Your task to perform on an android device: What's on my calendar today? Image 0: 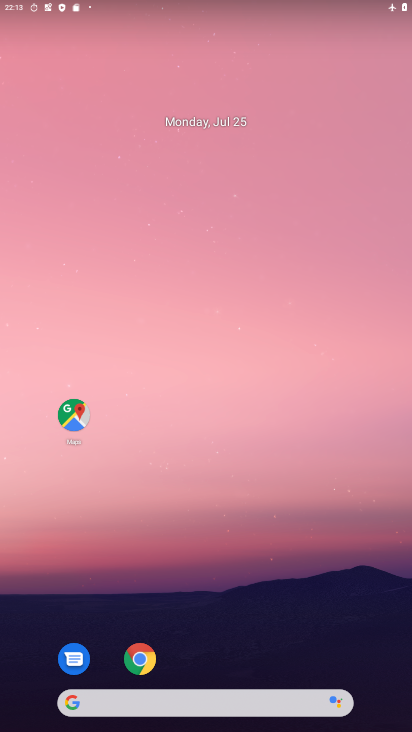
Step 0: drag from (196, 653) to (201, 232)
Your task to perform on an android device: What's on my calendar today? Image 1: 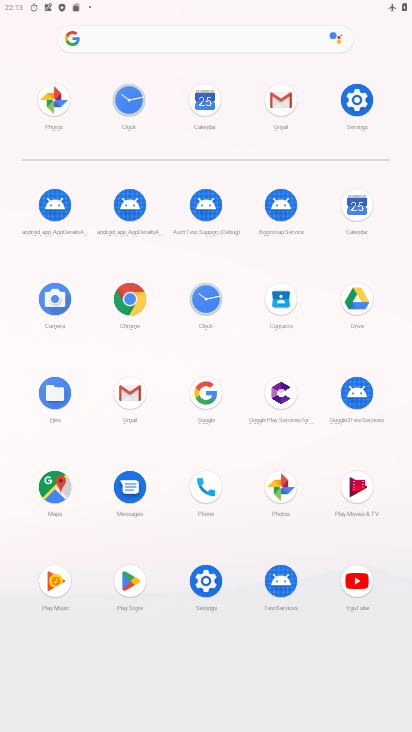
Step 1: click (348, 219)
Your task to perform on an android device: What's on my calendar today? Image 2: 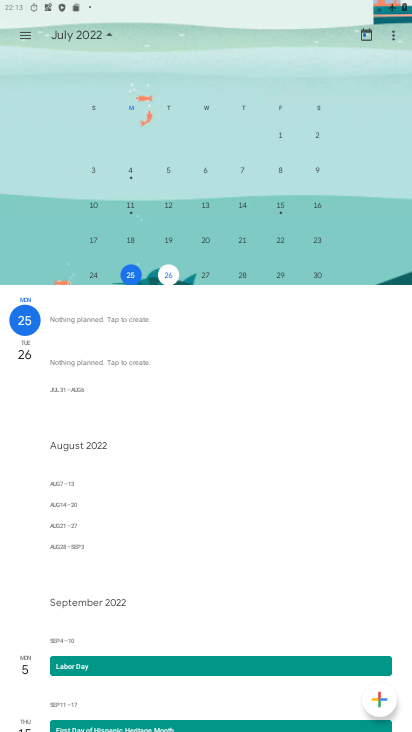
Step 2: click (131, 271)
Your task to perform on an android device: What's on my calendar today? Image 3: 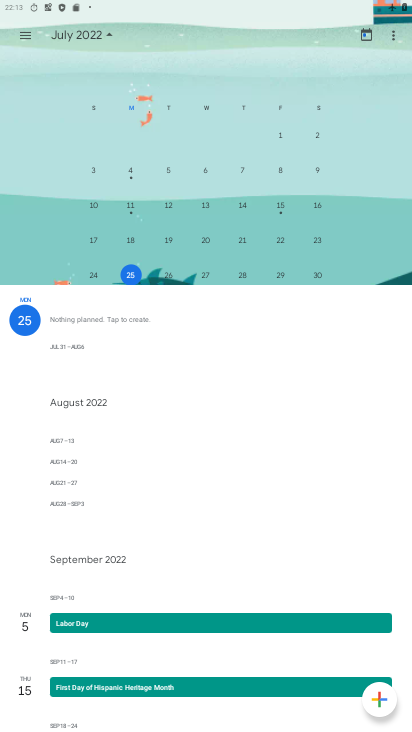
Step 3: task complete